Your task to perform on an android device: What is the news today? Image 0: 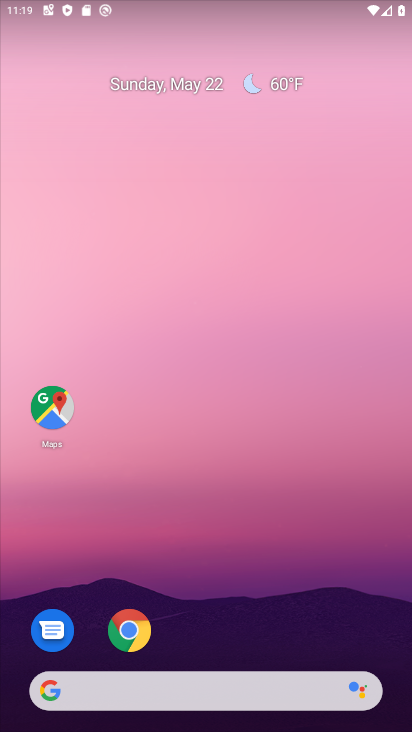
Step 0: drag from (236, 597) to (202, 183)
Your task to perform on an android device: What is the news today? Image 1: 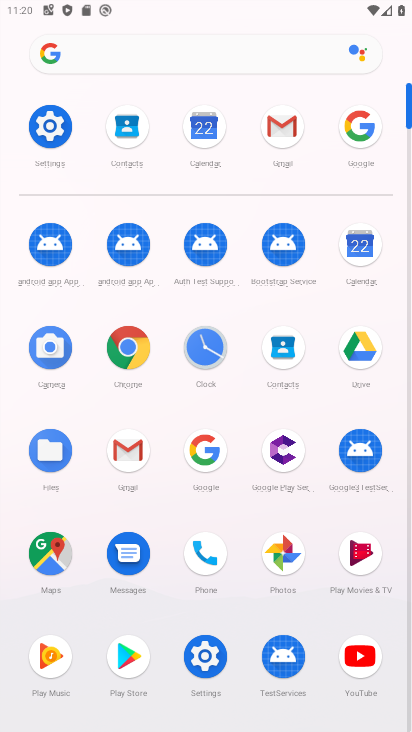
Step 1: click (358, 127)
Your task to perform on an android device: What is the news today? Image 2: 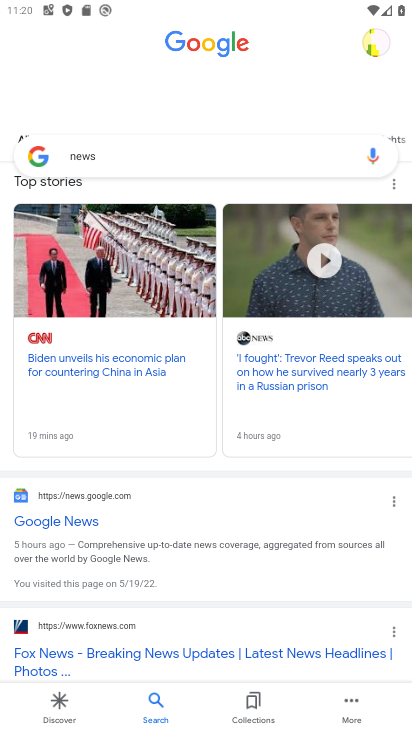
Step 2: click (158, 143)
Your task to perform on an android device: What is the news today? Image 3: 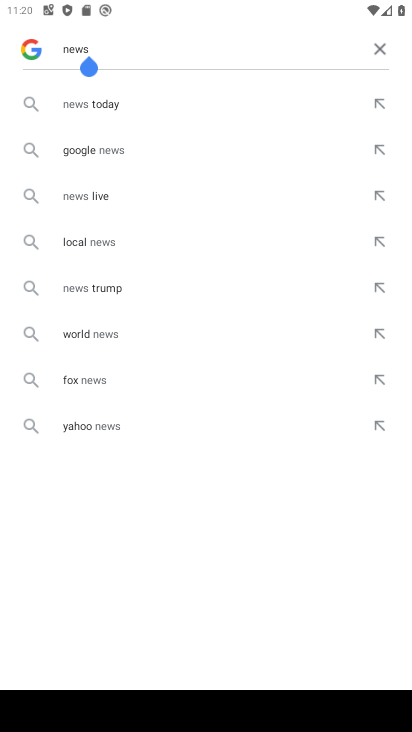
Step 3: click (94, 106)
Your task to perform on an android device: What is the news today? Image 4: 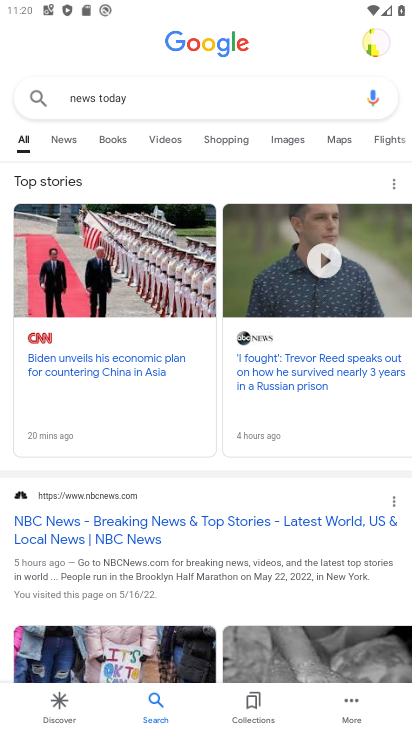
Step 4: click (122, 367)
Your task to perform on an android device: What is the news today? Image 5: 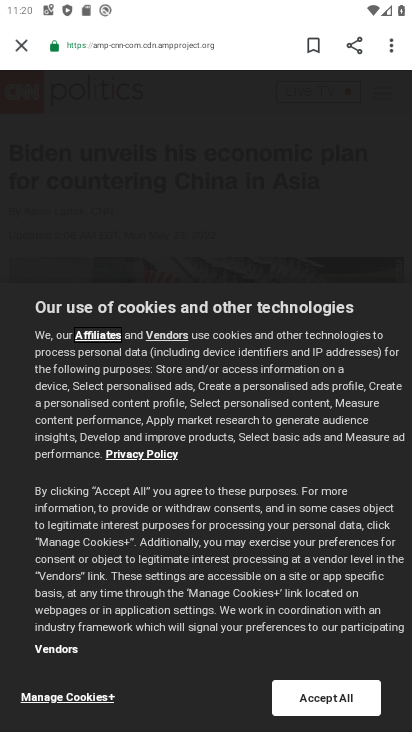
Step 5: task complete